Your task to perform on an android device: read, delete, or share a saved page in the chrome app Image 0: 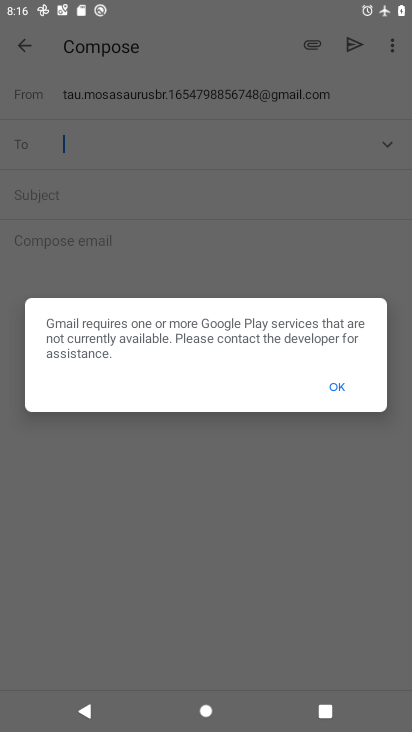
Step 0: press home button
Your task to perform on an android device: read, delete, or share a saved page in the chrome app Image 1: 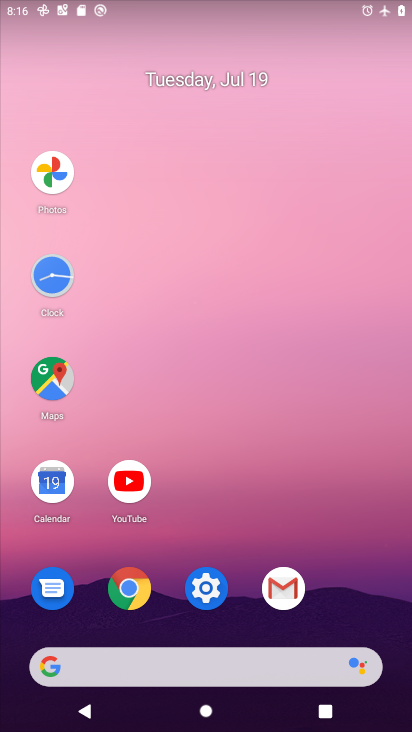
Step 1: click (126, 589)
Your task to perform on an android device: read, delete, or share a saved page in the chrome app Image 2: 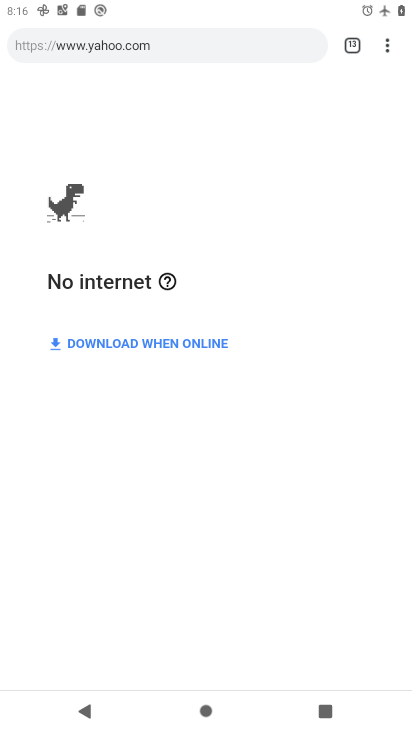
Step 2: click (386, 43)
Your task to perform on an android device: read, delete, or share a saved page in the chrome app Image 3: 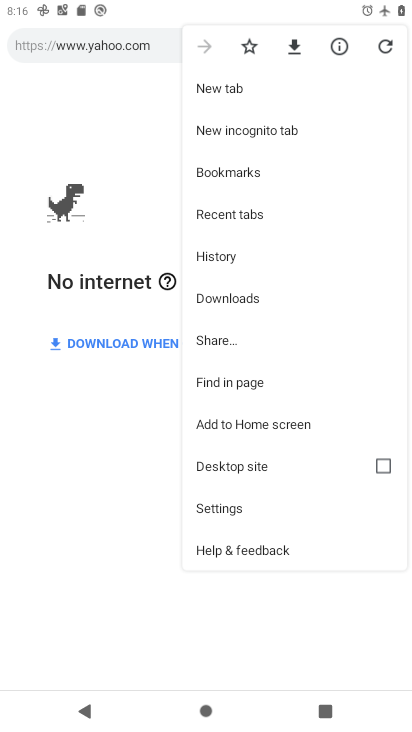
Step 3: click (236, 291)
Your task to perform on an android device: read, delete, or share a saved page in the chrome app Image 4: 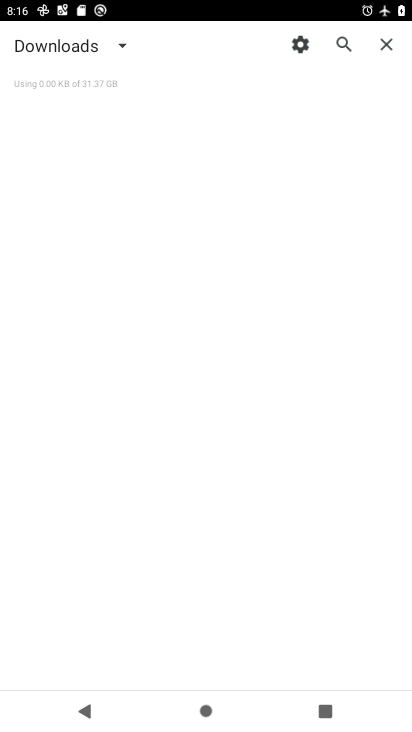
Step 4: task complete